Your task to perform on an android device: Show me the alarms in the clock app Image 0: 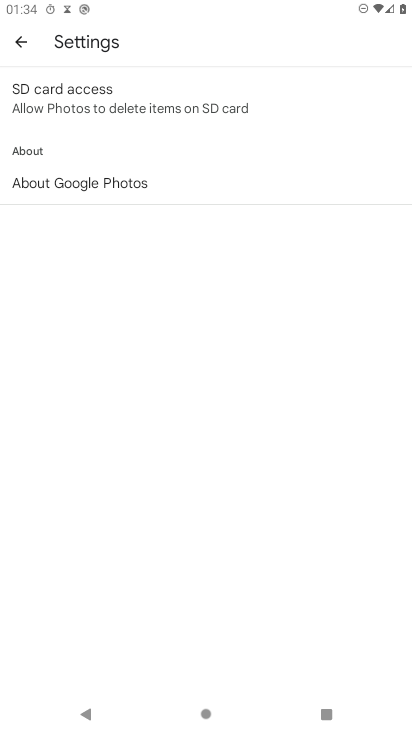
Step 0: press home button
Your task to perform on an android device: Show me the alarms in the clock app Image 1: 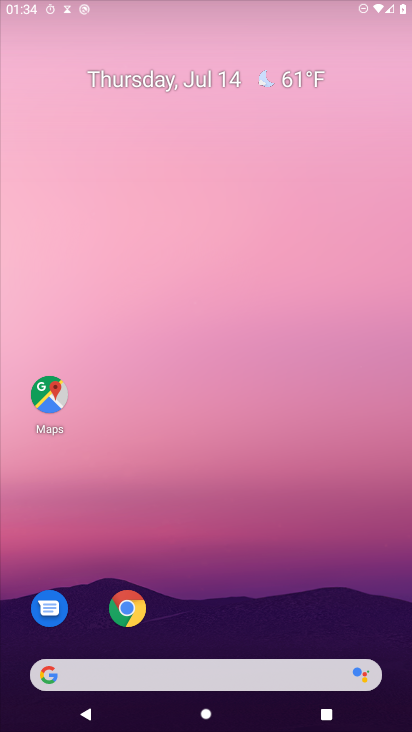
Step 1: drag from (211, 440) to (240, 14)
Your task to perform on an android device: Show me the alarms in the clock app Image 2: 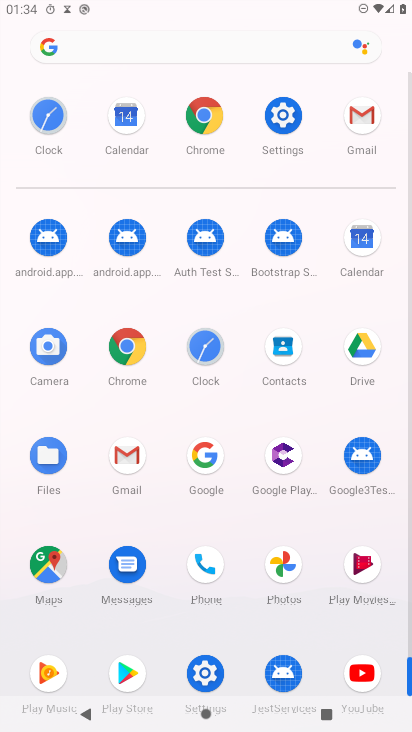
Step 2: click (203, 347)
Your task to perform on an android device: Show me the alarms in the clock app Image 3: 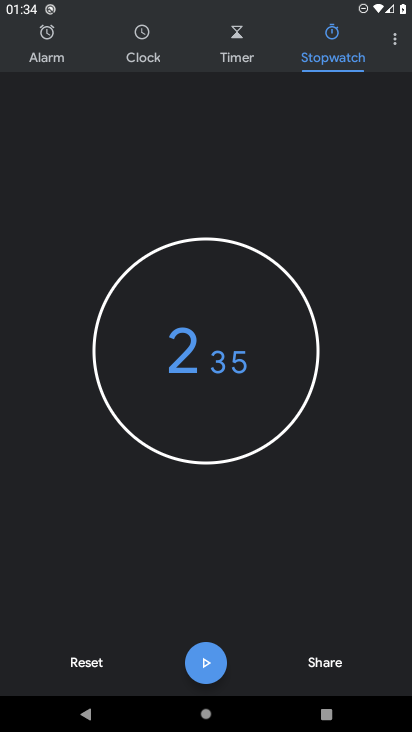
Step 3: click (31, 52)
Your task to perform on an android device: Show me the alarms in the clock app Image 4: 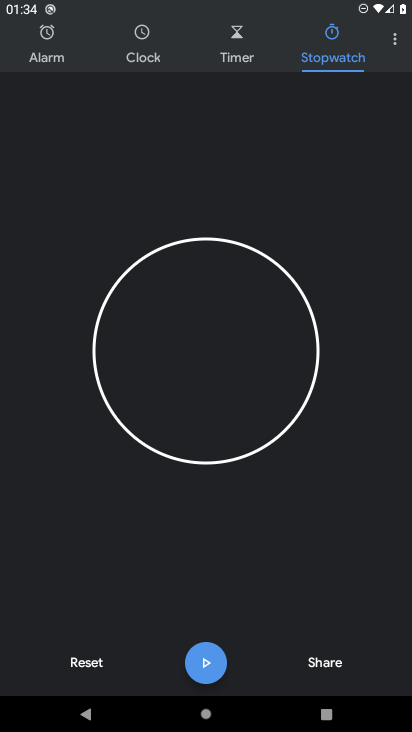
Step 4: click (52, 48)
Your task to perform on an android device: Show me the alarms in the clock app Image 5: 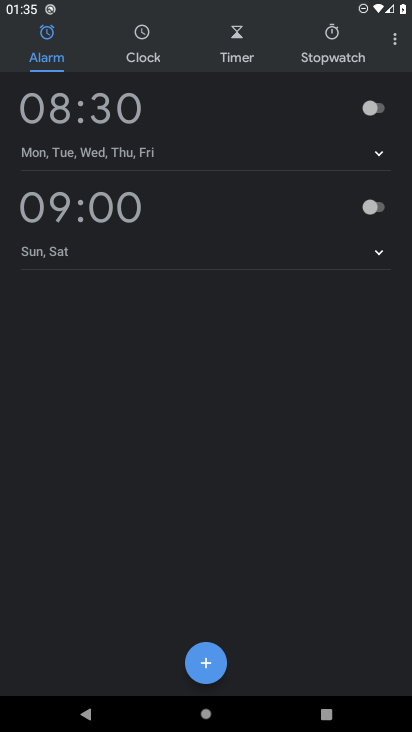
Step 5: task complete